Your task to perform on an android device: turn off location Image 0: 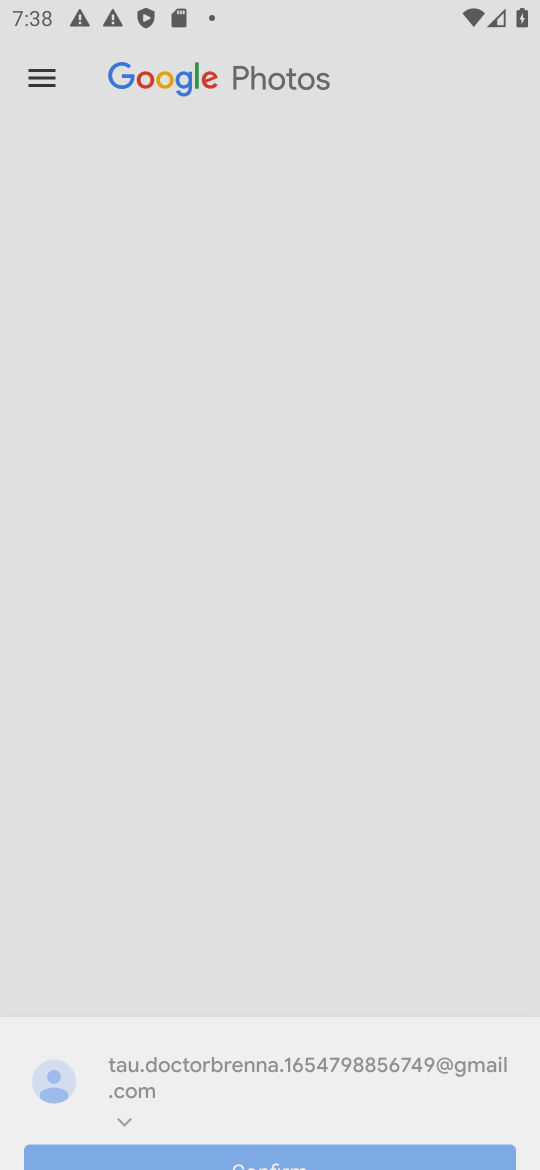
Step 0: press home button
Your task to perform on an android device: turn off location Image 1: 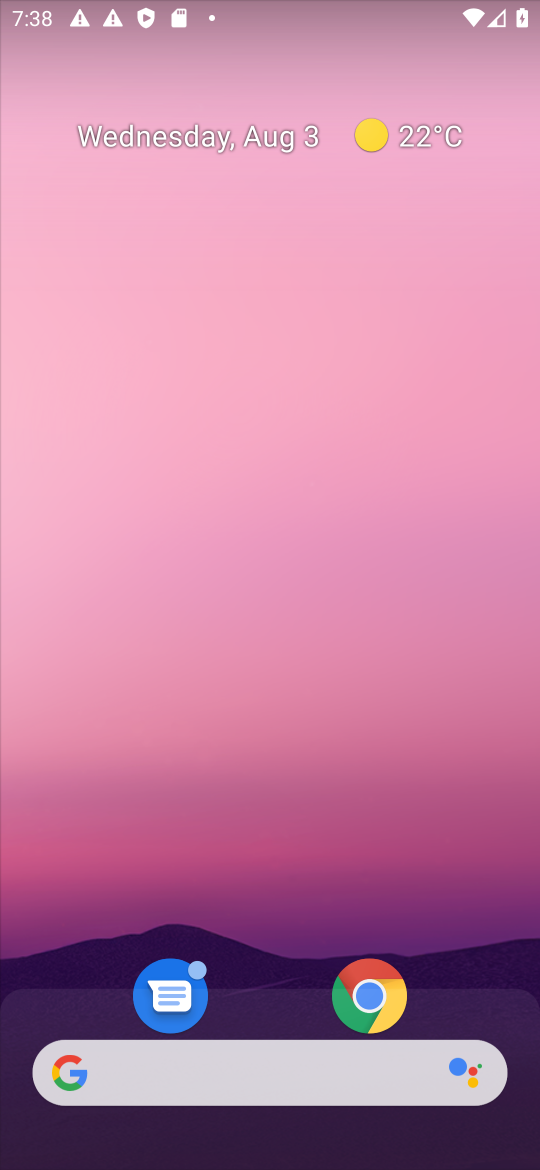
Step 1: drag from (287, 811) to (315, 363)
Your task to perform on an android device: turn off location Image 2: 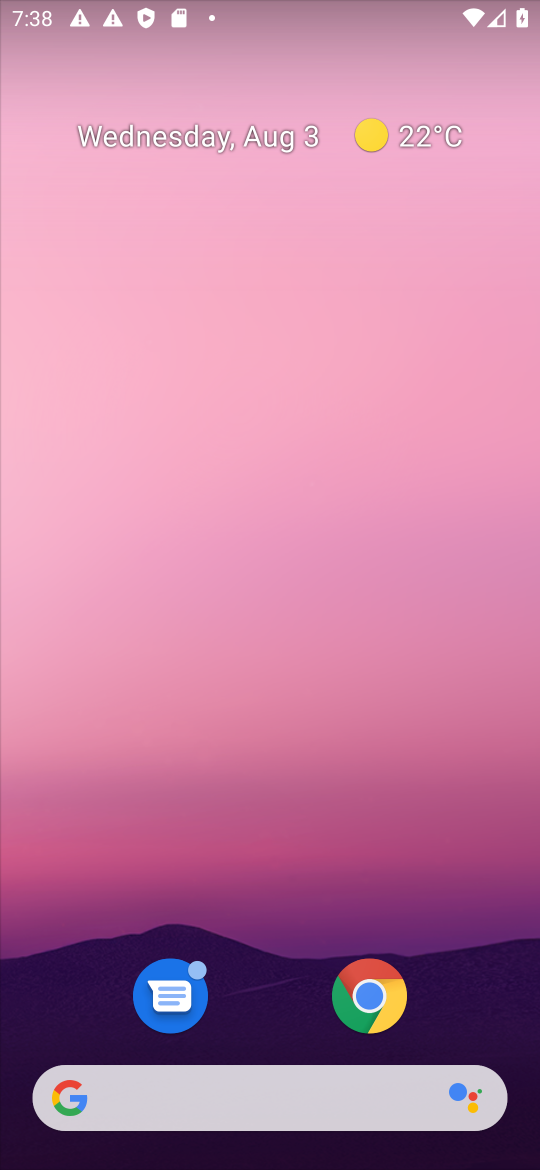
Step 2: drag from (266, 921) to (286, 229)
Your task to perform on an android device: turn off location Image 3: 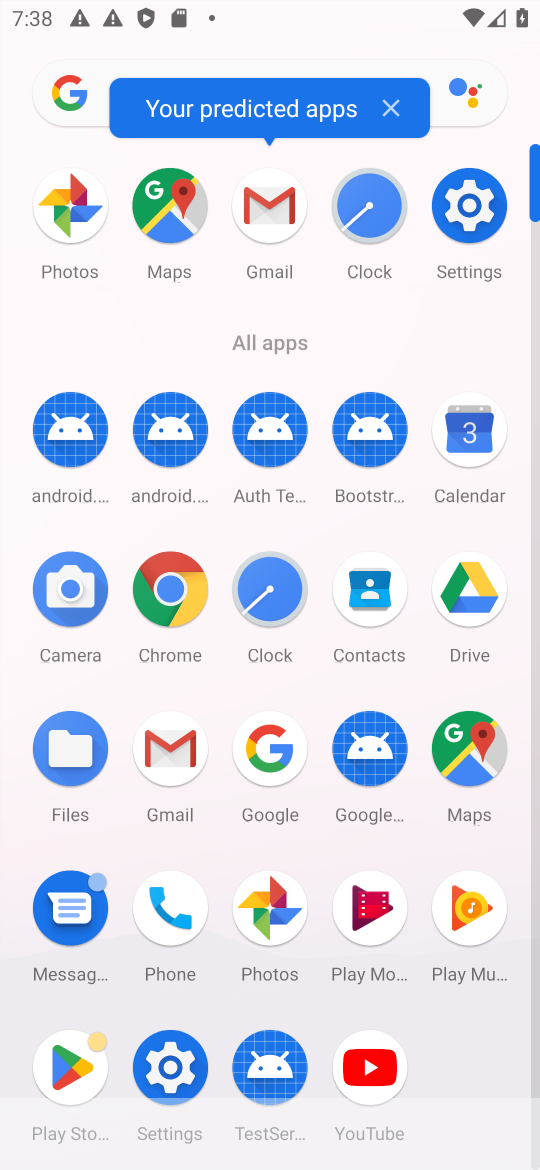
Step 3: click (477, 214)
Your task to perform on an android device: turn off location Image 4: 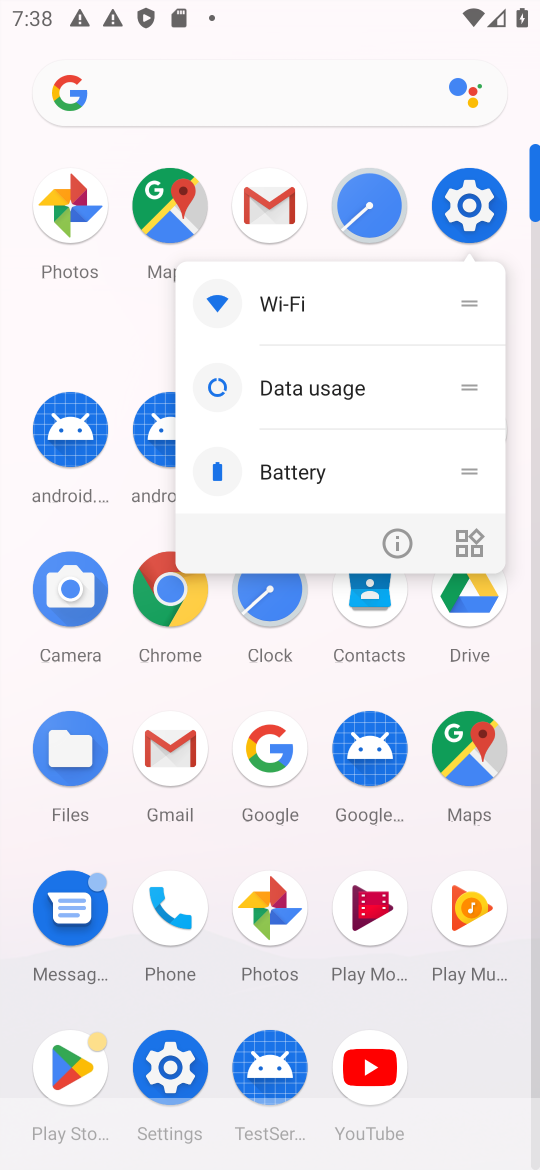
Step 4: click (498, 181)
Your task to perform on an android device: turn off location Image 5: 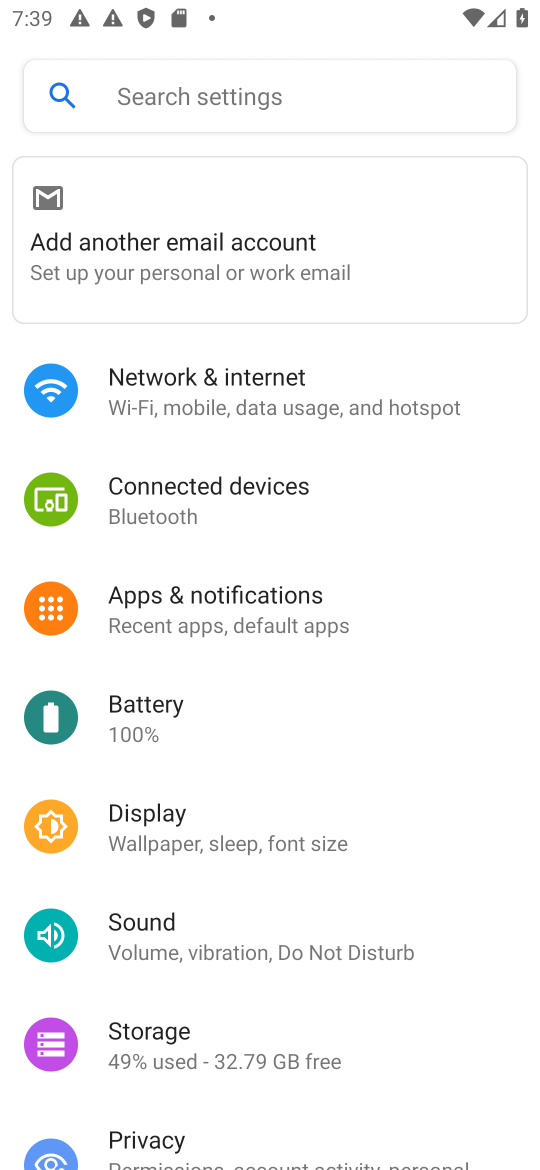
Step 5: drag from (193, 1090) to (292, 490)
Your task to perform on an android device: turn off location Image 6: 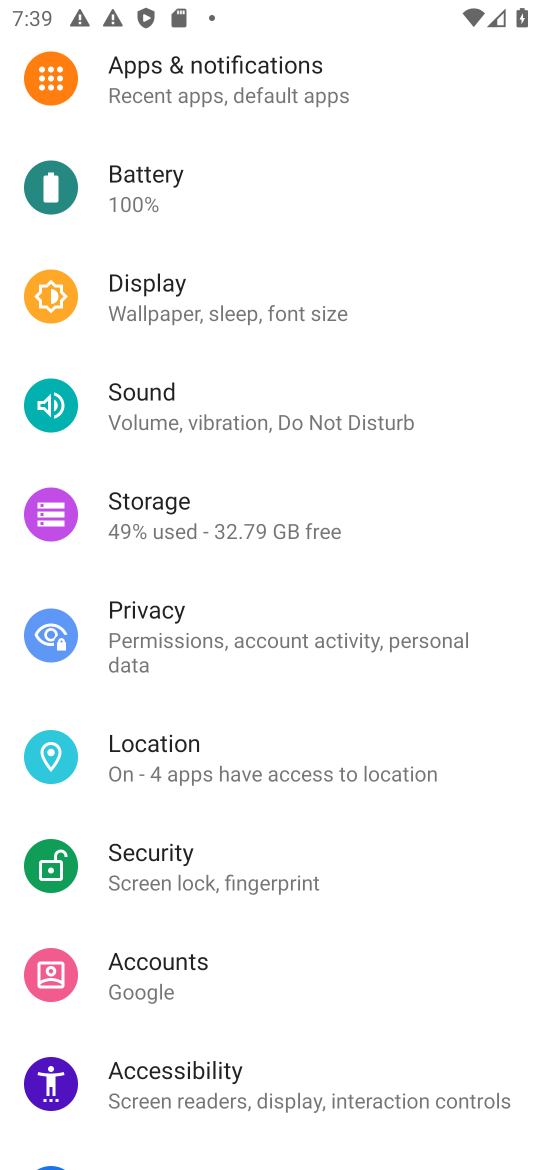
Step 6: click (178, 764)
Your task to perform on an android device: turn off location Image 7: 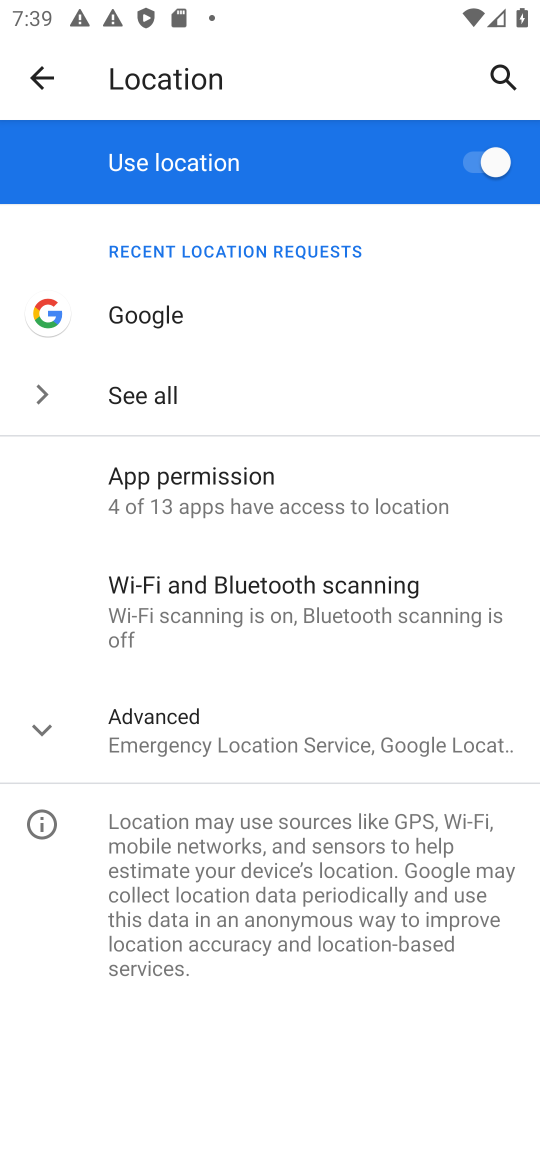
Step 7: click (450, 149)
Your task to perform on an android device: turn off location Image 8: 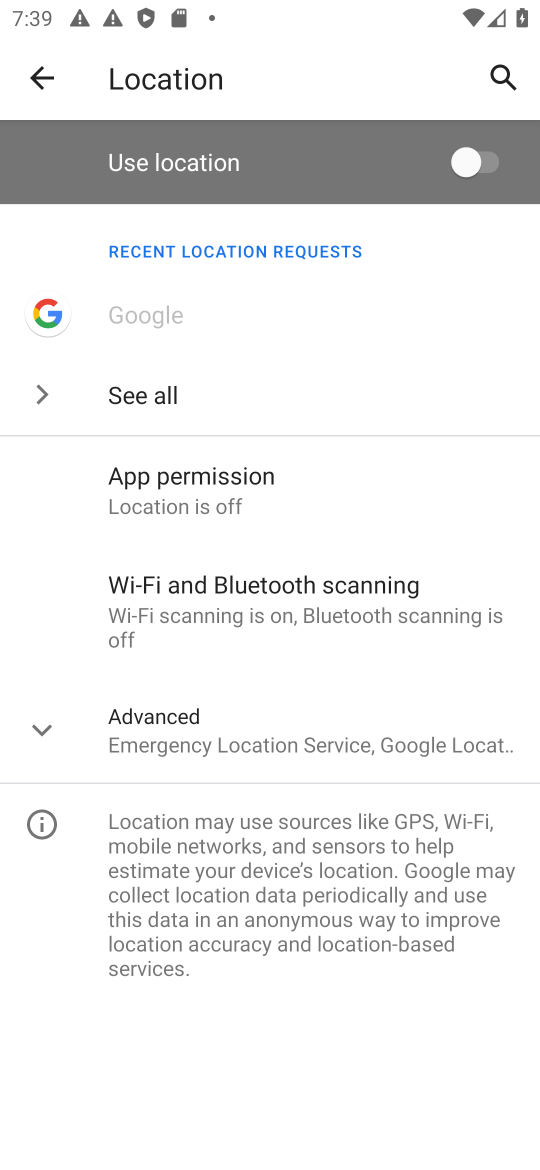
Step 8: task complete